Your task to perform on an android device: Go to Amazon Image 0: 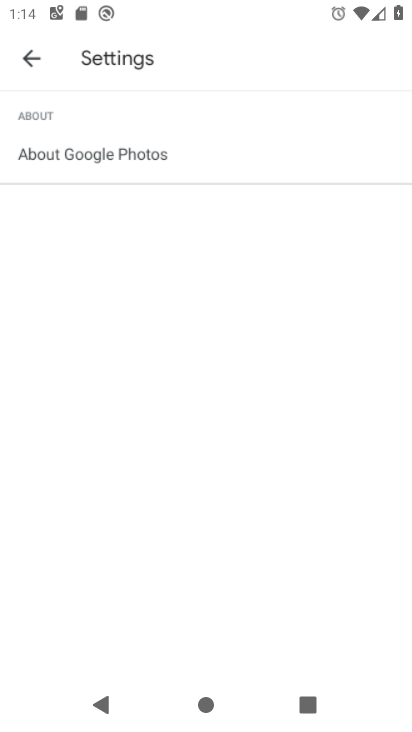
Step 0: press home button
Your task to perform on an android device: Go to Amazon Image 1: 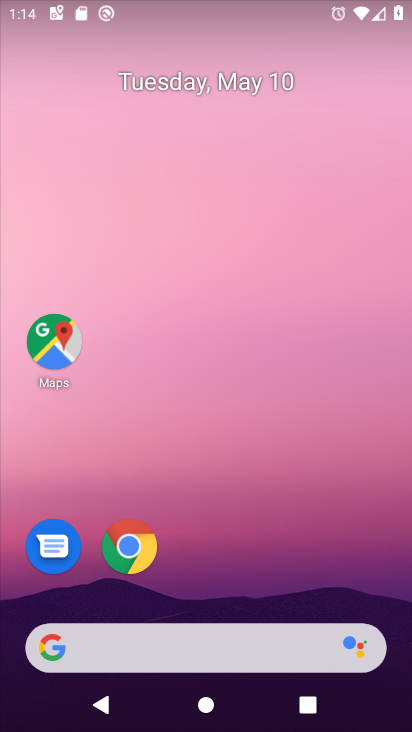
Step 1: click (129, 550)
Your task to perform on an android device: Go to Amazon Image 2: 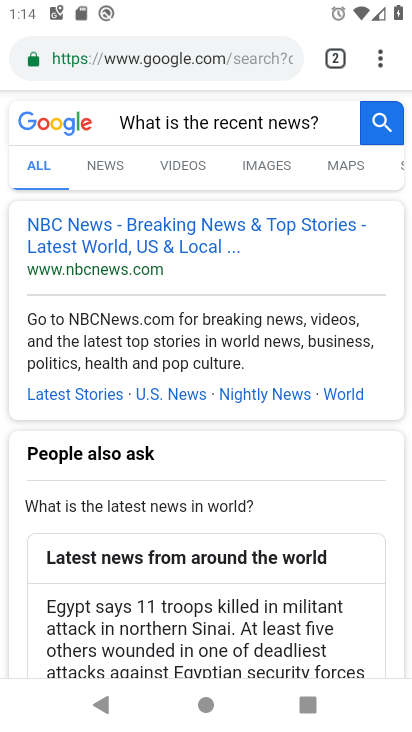
Step 2: drag from (378, 58) to (332, 102)
Your task to perform on an android device: Go to Amazon Image 3: 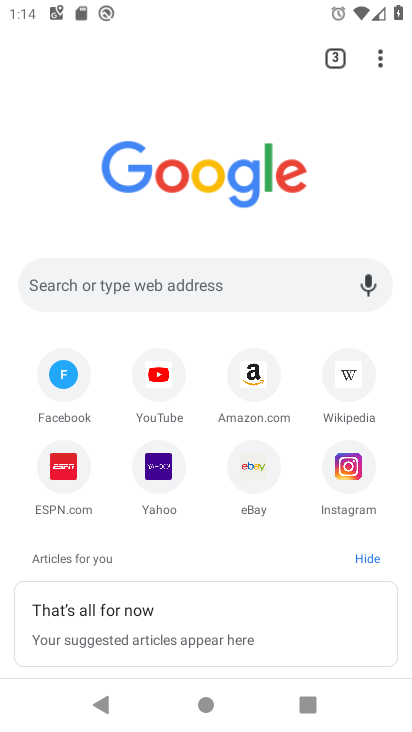
Step 3: click (275, 379)
Your task to perform on an android device: Go to Amazon Image 4: 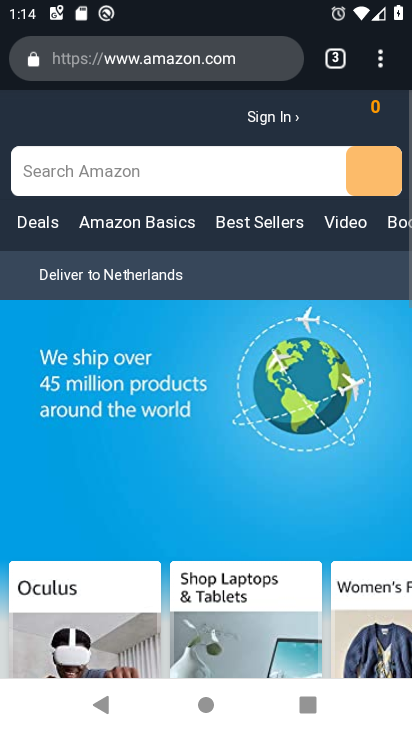
Step 4: task complete